Your task to perform on an android device: When is my next appointment? Image 0: 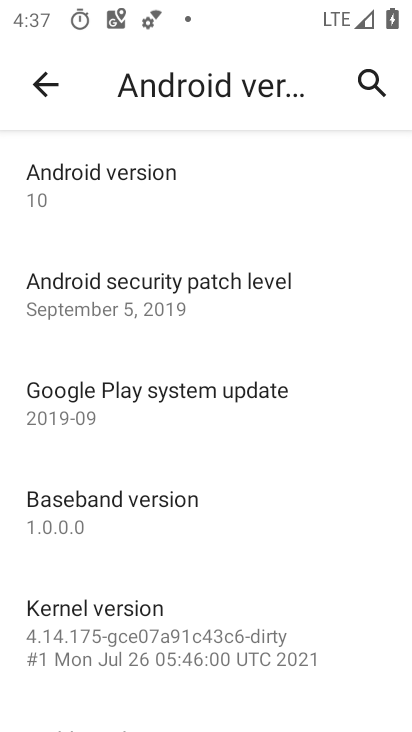
Step 0: press home button
Your task to perform on an android device: When is my next appointment? Image 1: 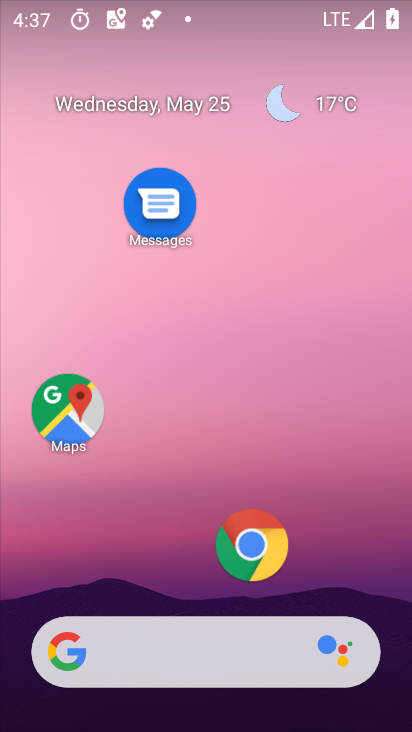
Step 1: click (204, 95)
Your task to perform on an android device: When is my next appointment? Image 2: 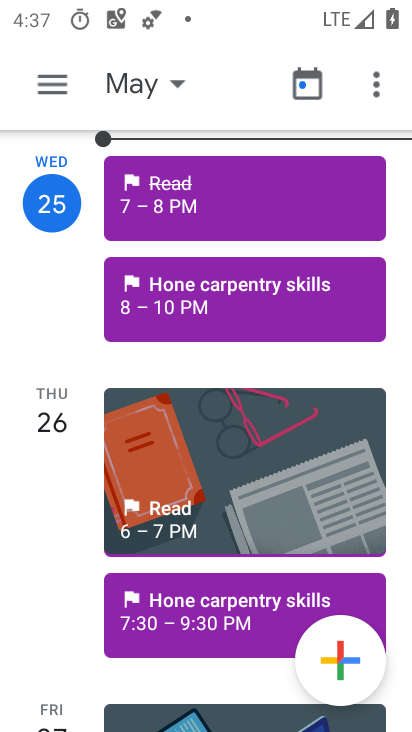
Step 2: task complete